Your task to perform on an android device: Find coffee shops on Maps Image 0: 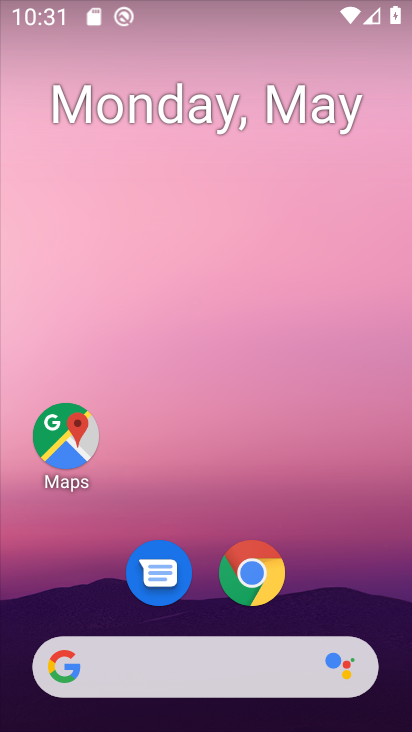
Step 0: click (69, 425)
Your task to perform on an android device: Find coffee shops on Maps Image 1: 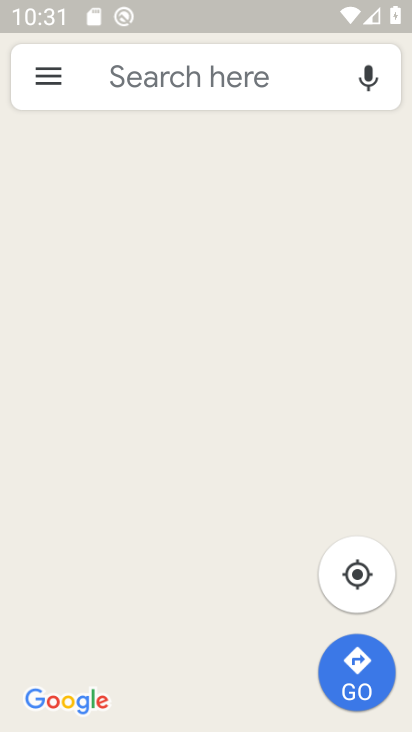
Step 1: click (166, 81)
Your task to perform on an android device: Find coffee shops on Maps Image 2: 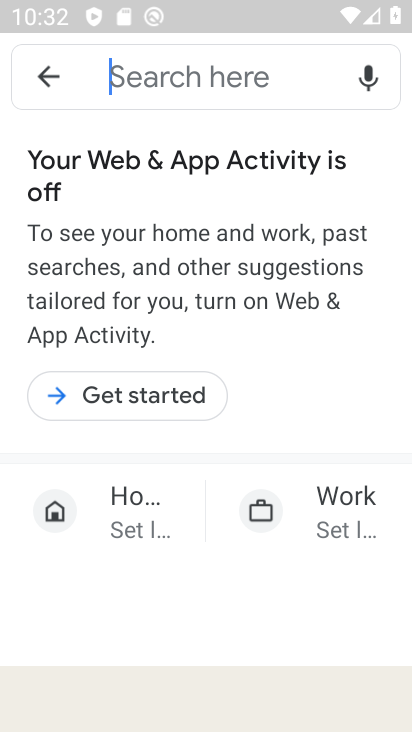
Step 2: click (130, 78)
Your task to perform on an android device: Find coffee shops on Maps Image 3: 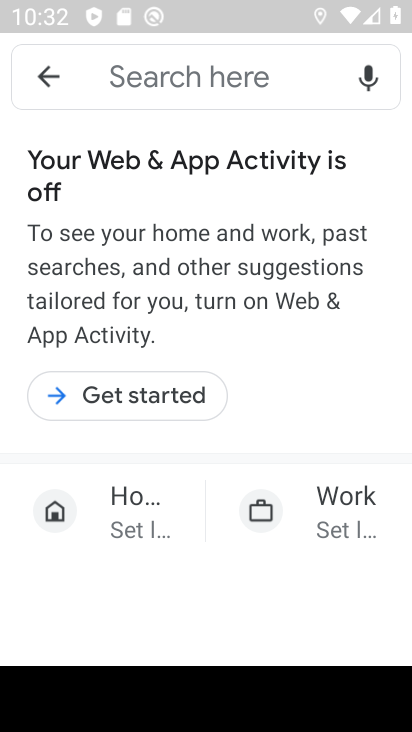
Step 3: type "coffee shops"
Your task to perform on an android device: Find coffee shops on Maps Image 4: 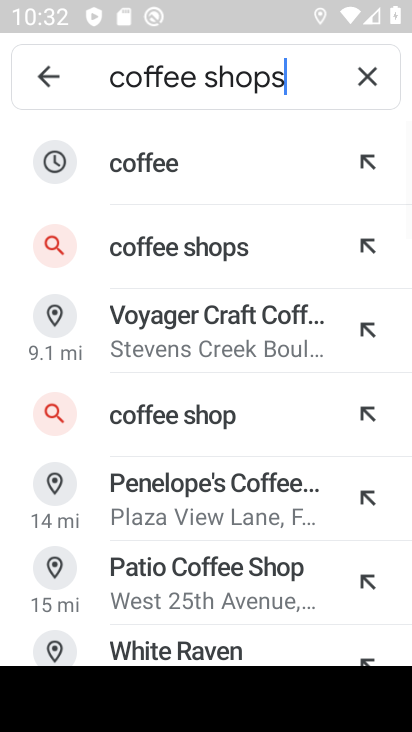
Step 4: click (170, 247)
Your task to perform on an android device: Find coffee shops on Maps Image 5: 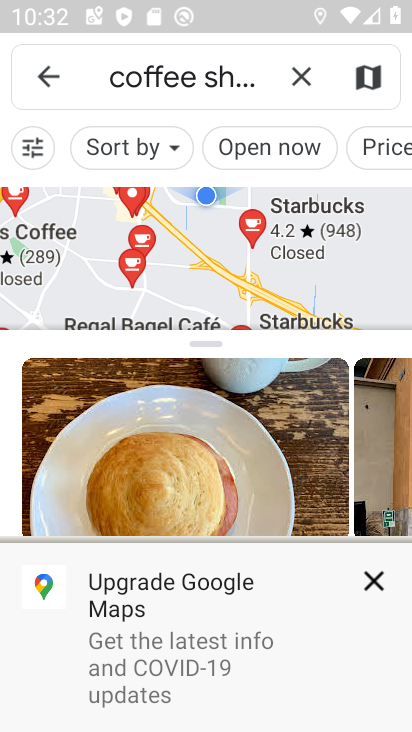
Step 5: task complete